Your task to perform on an android device: turn off improve location accuracy Image 0: 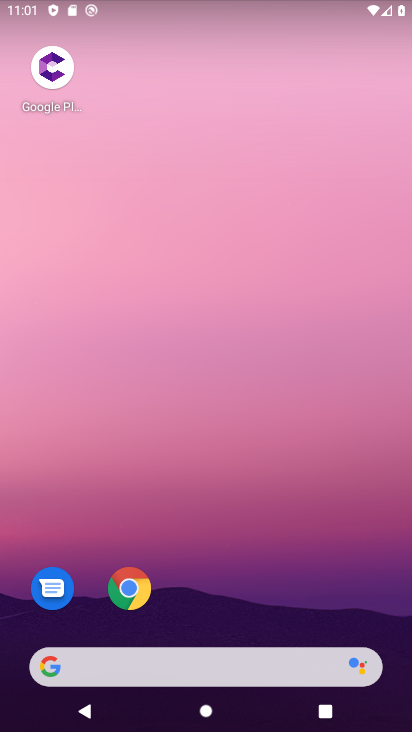
Step 0: drag from (280, 602) to (48, 33)
Your task to perform on an android device: turn off improve location accuracy Image 1: 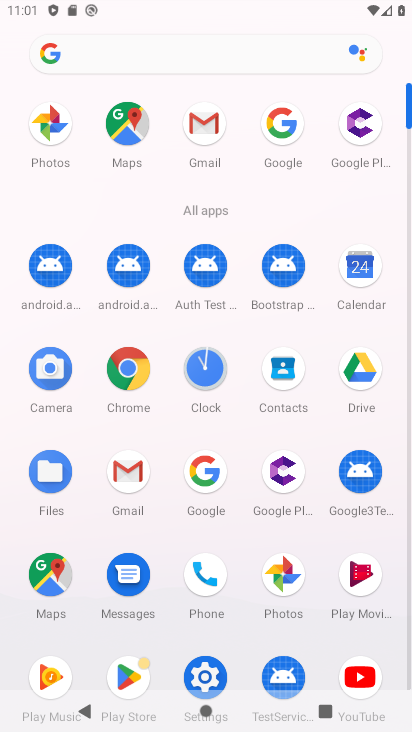
Step 1: click (208, 672)
Your task to perform on an android device: turn off improve location accuracy Image 2: 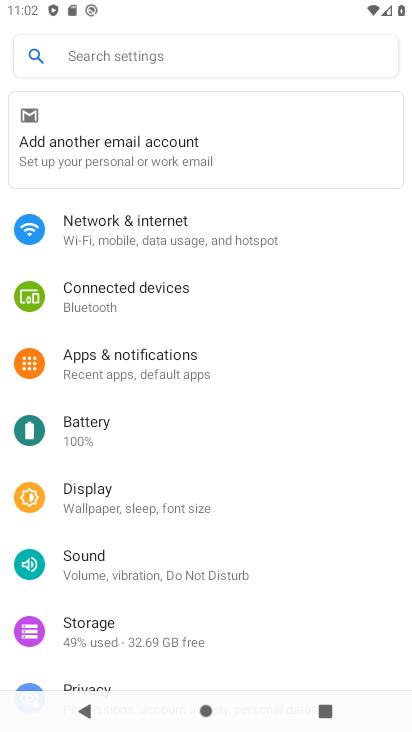
Step 2: drag from (112, 647) to (130, 233)
Your task to perform on an android device: turn off improve location accuracy Image 3: 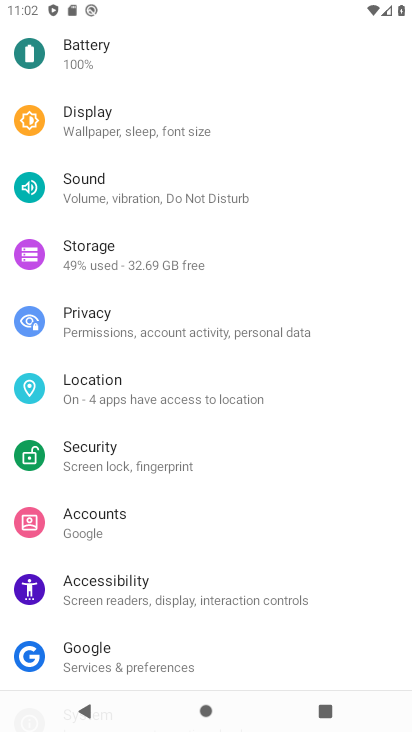
Step 3: click (106, 386)
Your task to perform on an android device: turn off improve location accuracy Image 4: 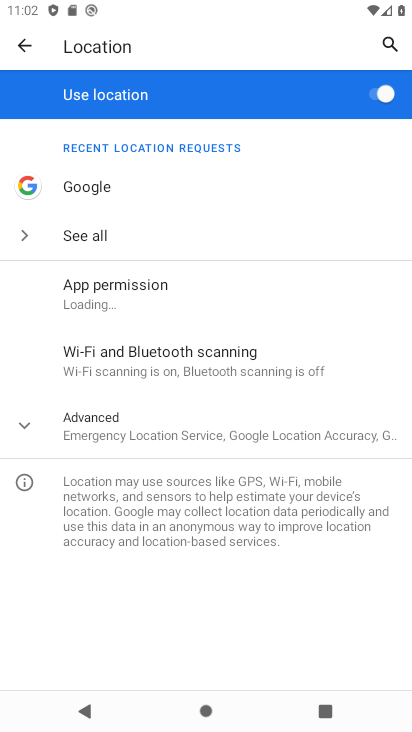
Step 4: click (91, 433)
Your task to perform on an android device: turn off improve location accuracy Image 5: 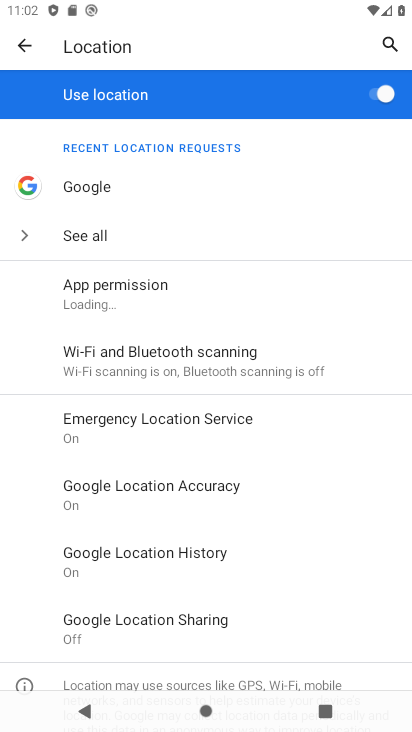
Step 5: click (136, 495)
Your task to perform on an android device: turn off improve location accuracy Image 6: 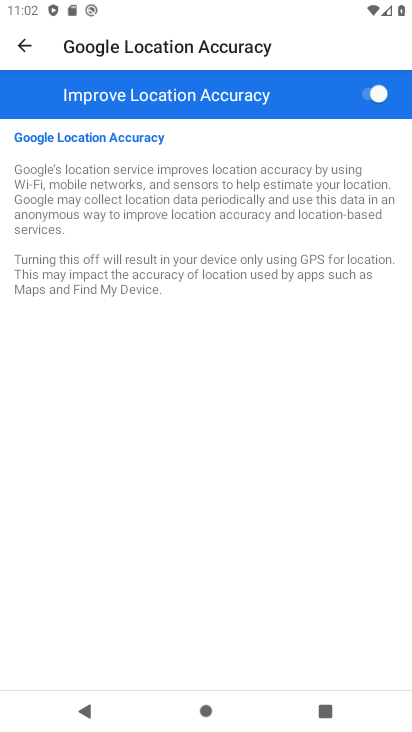
Step 6: click (355, 96)
Your task to perform on an android device: turn off improve location accuracy Image 7: 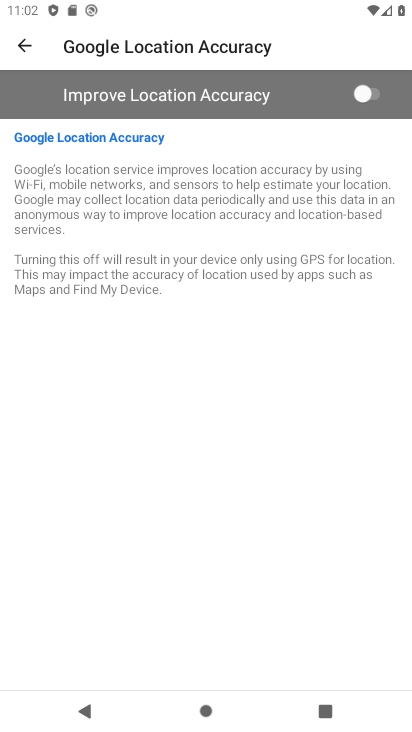
Step 7: task complete